Your task to perform on an android device: Open Google Chrome Image 0: 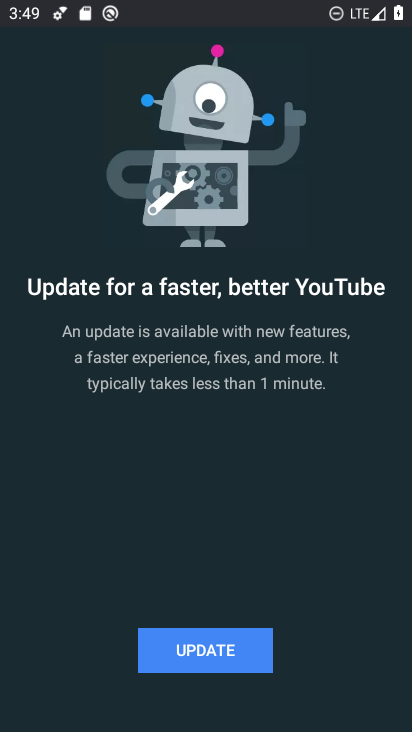
Step 0: press home button
Your task to perform on an android device: Open Google Chrome Image 1: 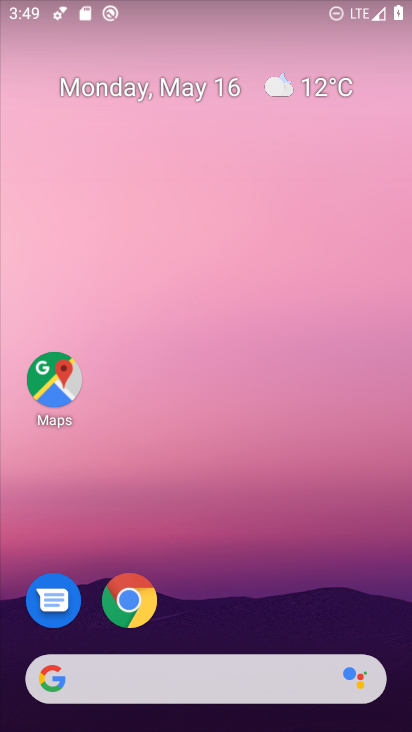
Step 1: click (129, 602)
Your task to perform on an android device: Open Google Chrome Image 2: 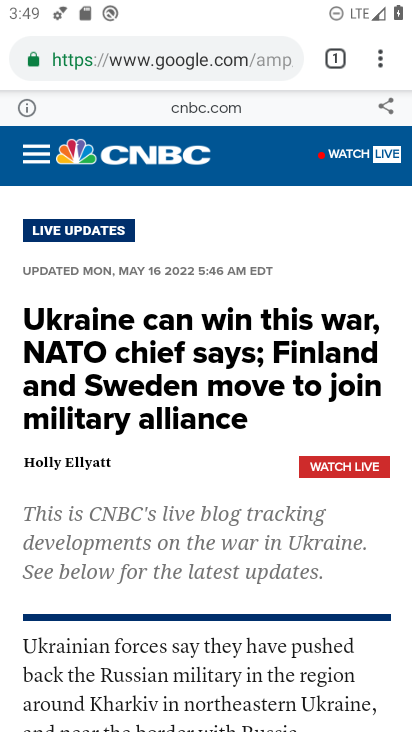
Step 2: task complete